Your task to perform on an android device: clear all cookies in the chrome app Image 0: 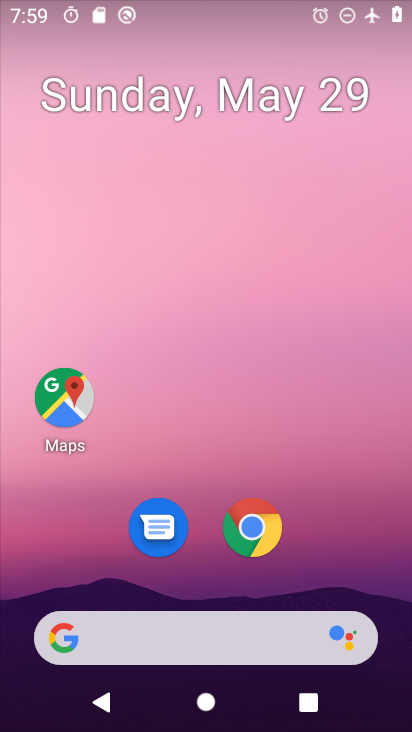
Step 0: drag from (392, 653) to (291, 77)
Your task to perform on an android device: clear all cookies in the chrome app Image 1: 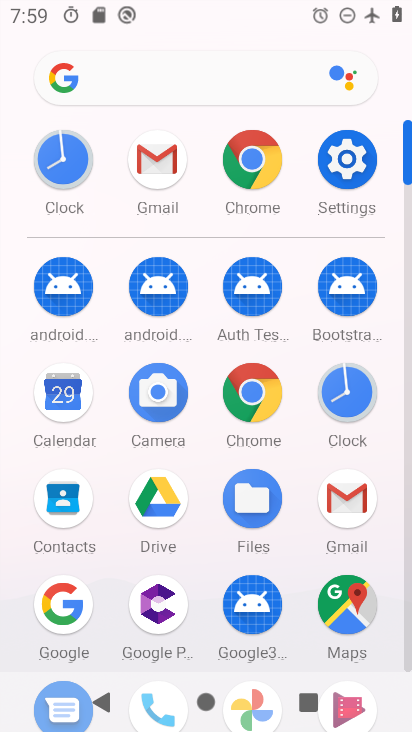
Step 1: click (277, 137)
Your task to perform on an android device: clear all cookies in the chrome app Image 2: 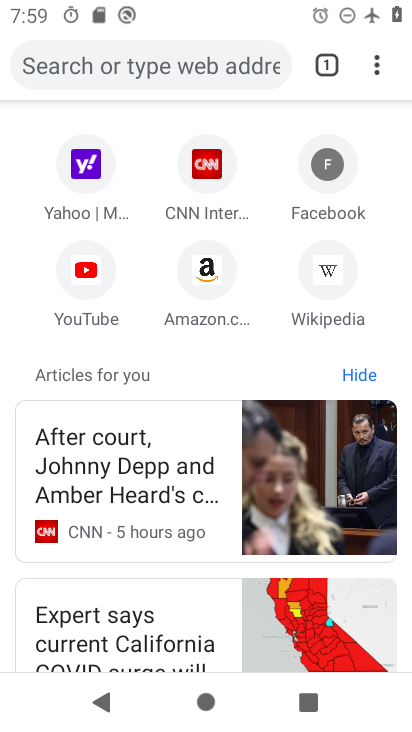
Step 2: click (370, 66)
Your task to perform on an android device: clear all cookies in the chrome app Image 3: 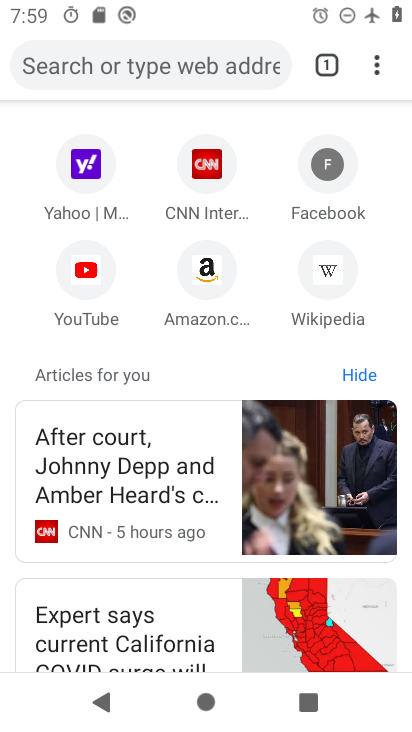
Step 3: click (375, 58)
Your task to perform on an android device: clear all cookies in the chrome app Image 4: 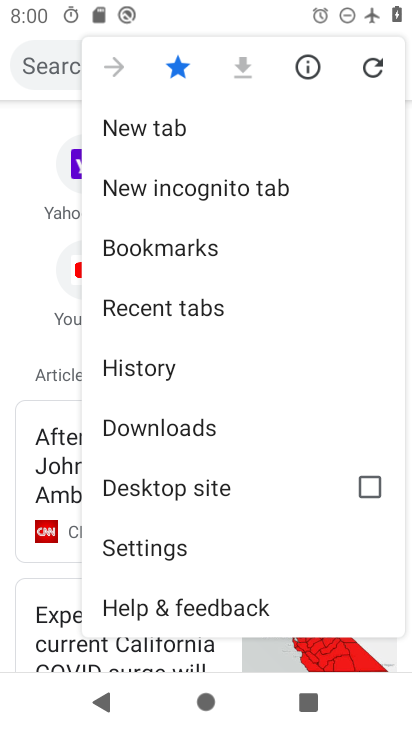
Step 4: click (151, 547)
Your task to perform on an android device: clear all cookies in the chrome app Image 5: 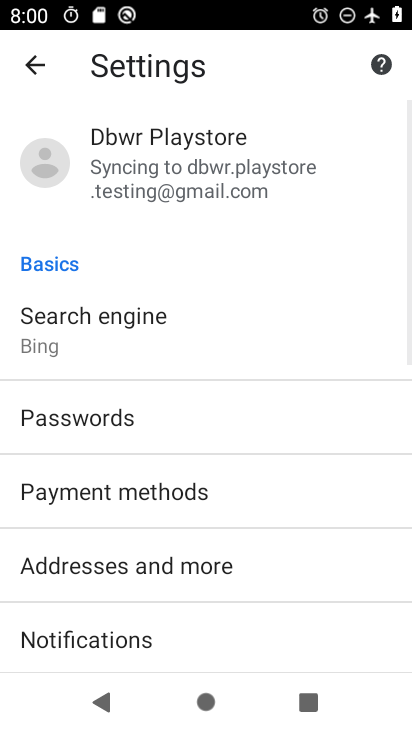
Step 5: press back button
Your task to perform on an android device: clear all cookies in the chrome app Image 6: 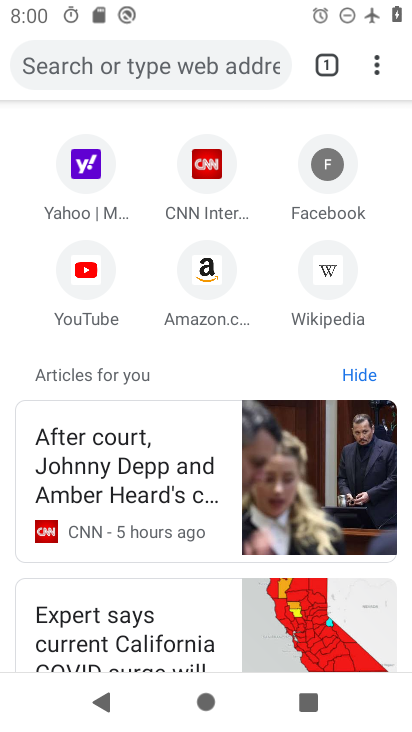
Step 6: click (379, 62)
Your task to perform on an android device: clear all cookies in the chrome app Image 7: 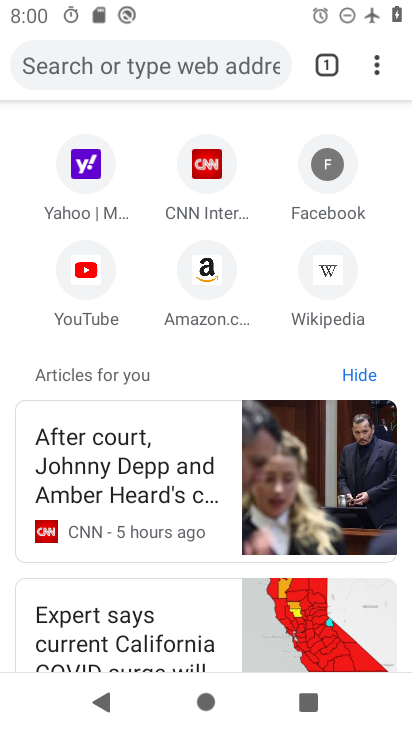
Step 7: click (376, 62)
Your task to perform on an android device: clear all cookies in the chrome app Image 8: 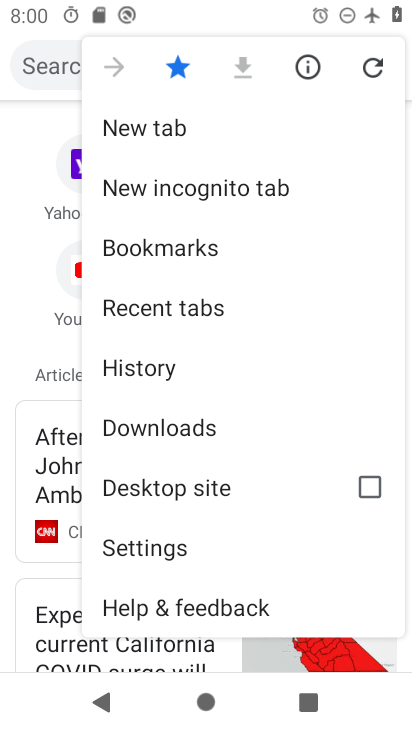
Step 8: click (166, 366)
Your task to perform on an android device: clear all cookies in the chrome app Image 9: 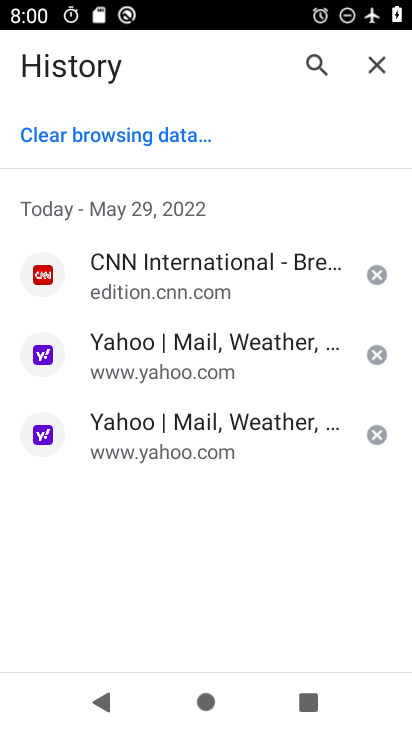
Step 9: click (100, 141)
Your task to perform on an android device: clear all cookies in the chrome app Image 10: 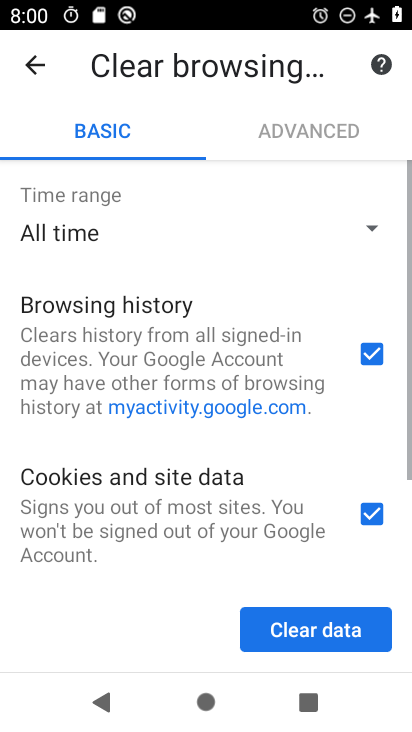
Step 10: click (295, 625)
Your task to perform on an android device: clear all cookies in the chrome app Image 11: 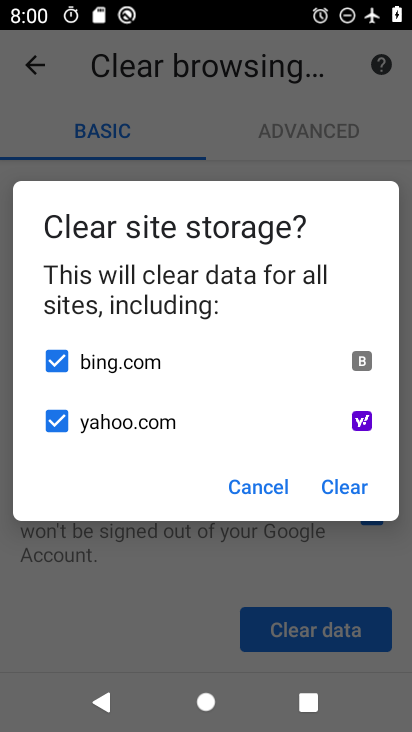
Step 11: click (337, 483)
Your task to perform on an android device: clear all cookies in the chrome app Image 12: 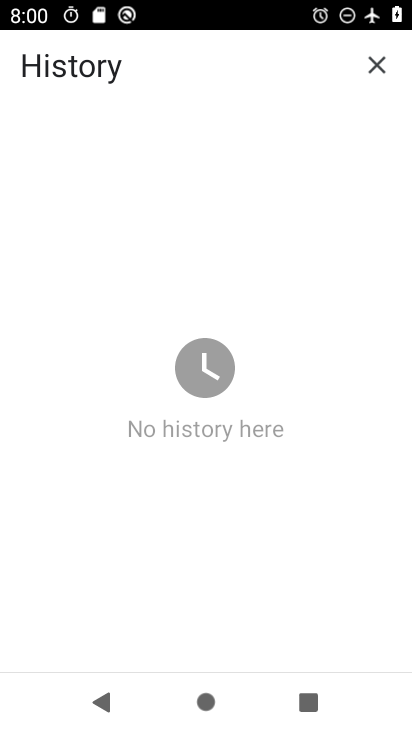
Step 12: task complete